Your task to perform on an android device: turn off notifications in google photos Image 0: 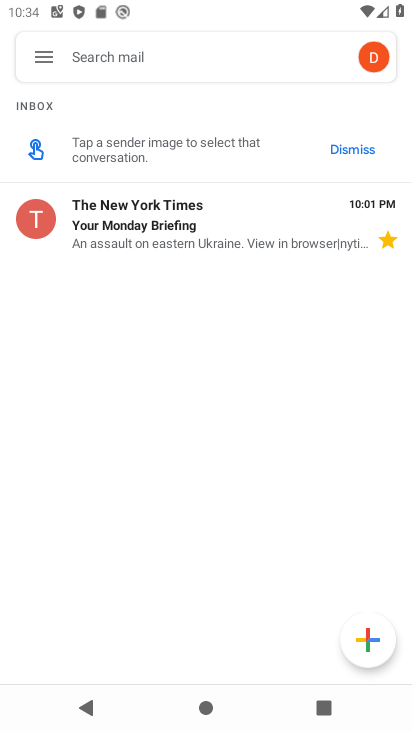
Step 0: press back button
Your task to perform on an android device: turn off notifications in google photos Image 1: 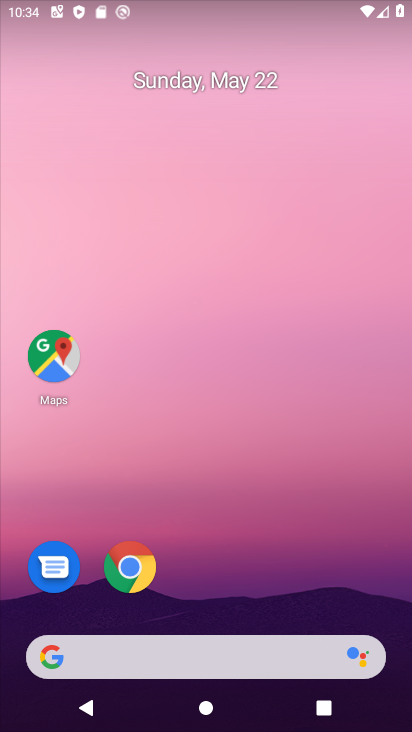
Step 1: drag from (233, 537) to (186, 11)
Your task to perform on an android device: turn off notifications in google photos Image 2: 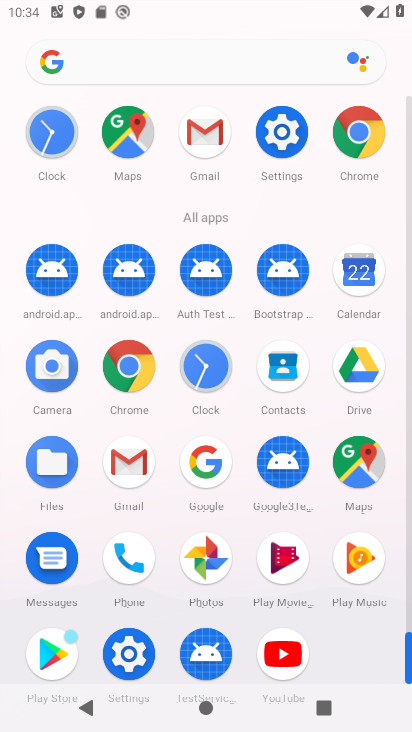
Step 2: click (205, 554)
Your task to perform on an android device: turn off notifications in google photos Image 3: 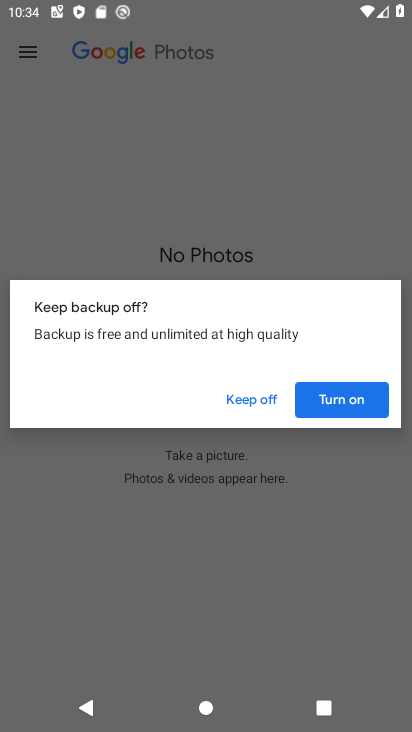
Step 3: click (321, 405)
Your task to perform on an android device: turn off notifications in google photos Image 4: 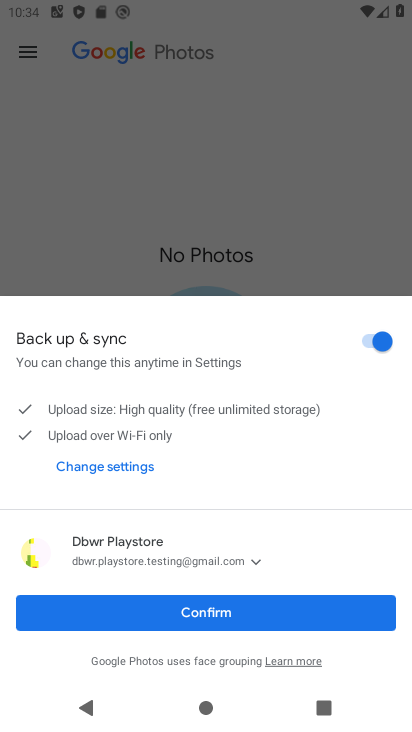
Step 4: click (210, 614)
Your task to perform on an android device: turn off notifications in google photos Image 5: 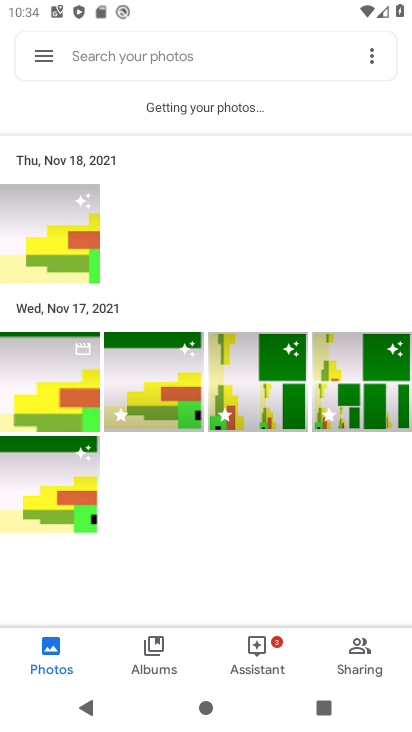
Step 5: task complete